Your task to perform on an android device: open app "ZOOM Cloud Meetings" (install if not already installed), go to login, and select forgot password Image 0: 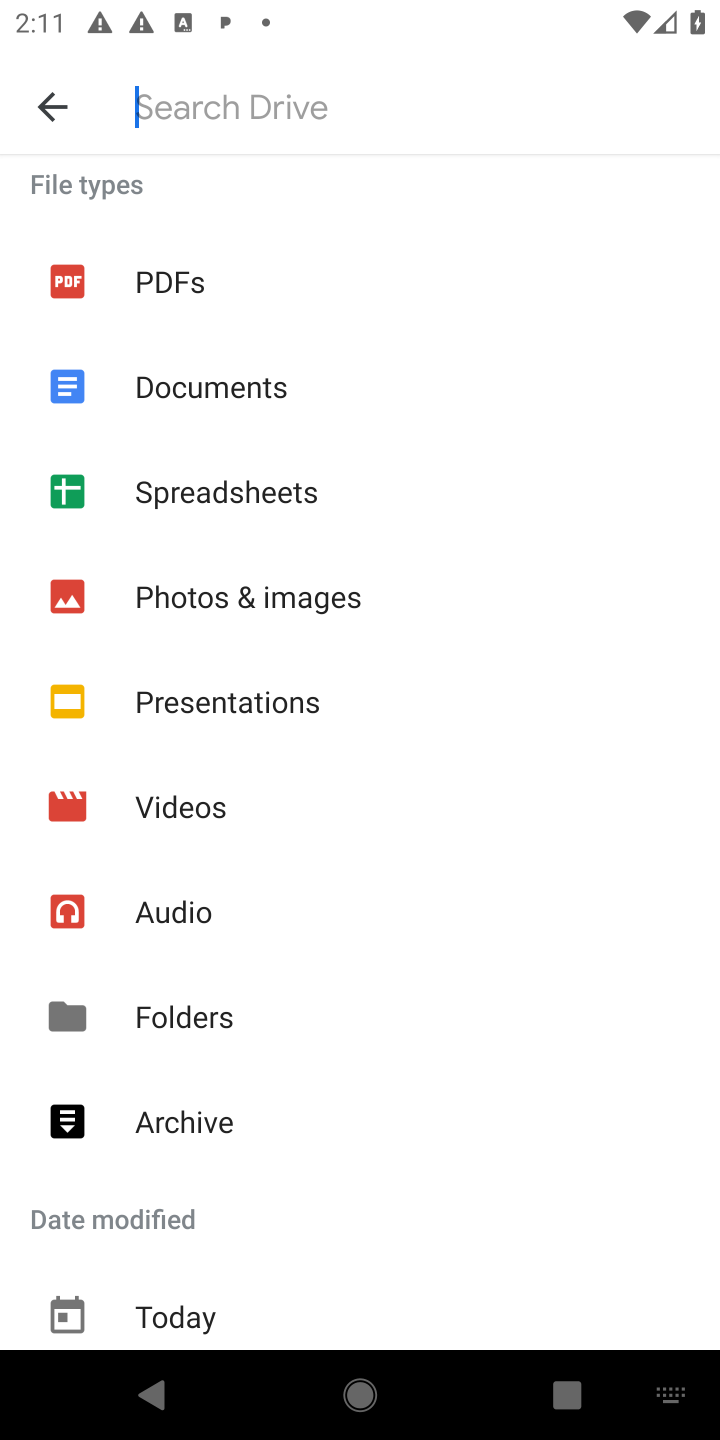
Step 0: press home button
Your task to perform on an android device: open app "ZOOM Cloud Meetings" (install if not already installed), go to login, and select forgot password Image 1: 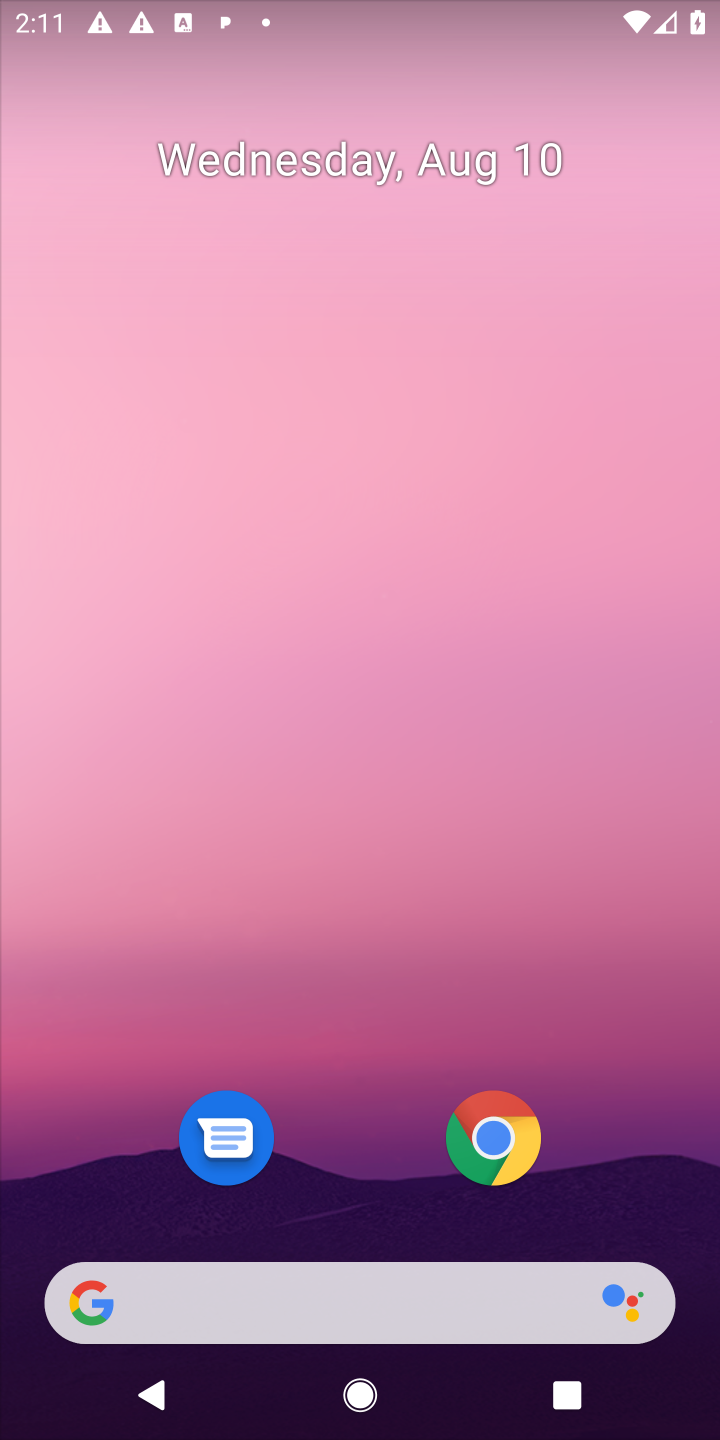
Step 1: drag from (617, 1202) to (625, 143)
Your task to perform on an android device: open app "ZOOM Cloud Meetings" (install if not already installed), go to login, and select forgot password Image 2: 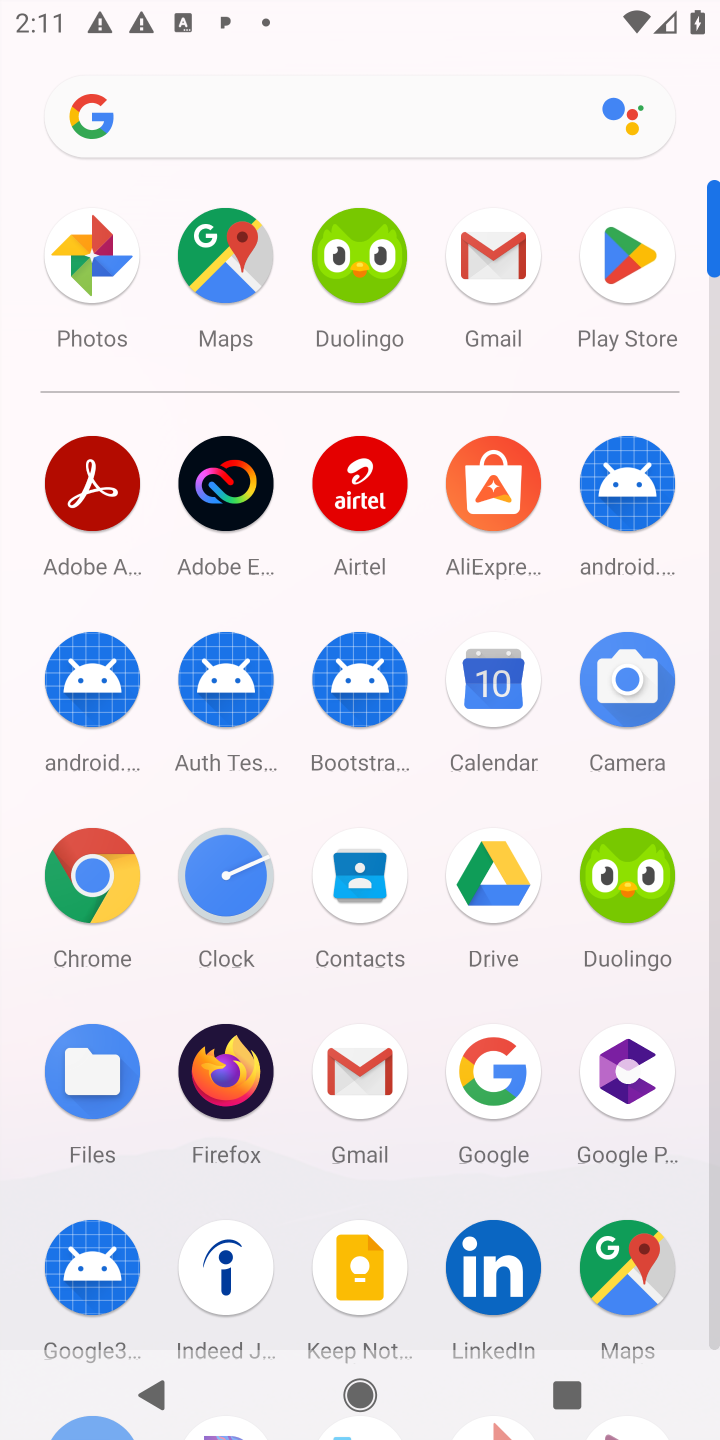
Step 2: click (610, 223)
Your task to perform on an android device: open app "ZOOM Cloud Meetings" (install if not already installed), go to login, and select forgot password Image 3: 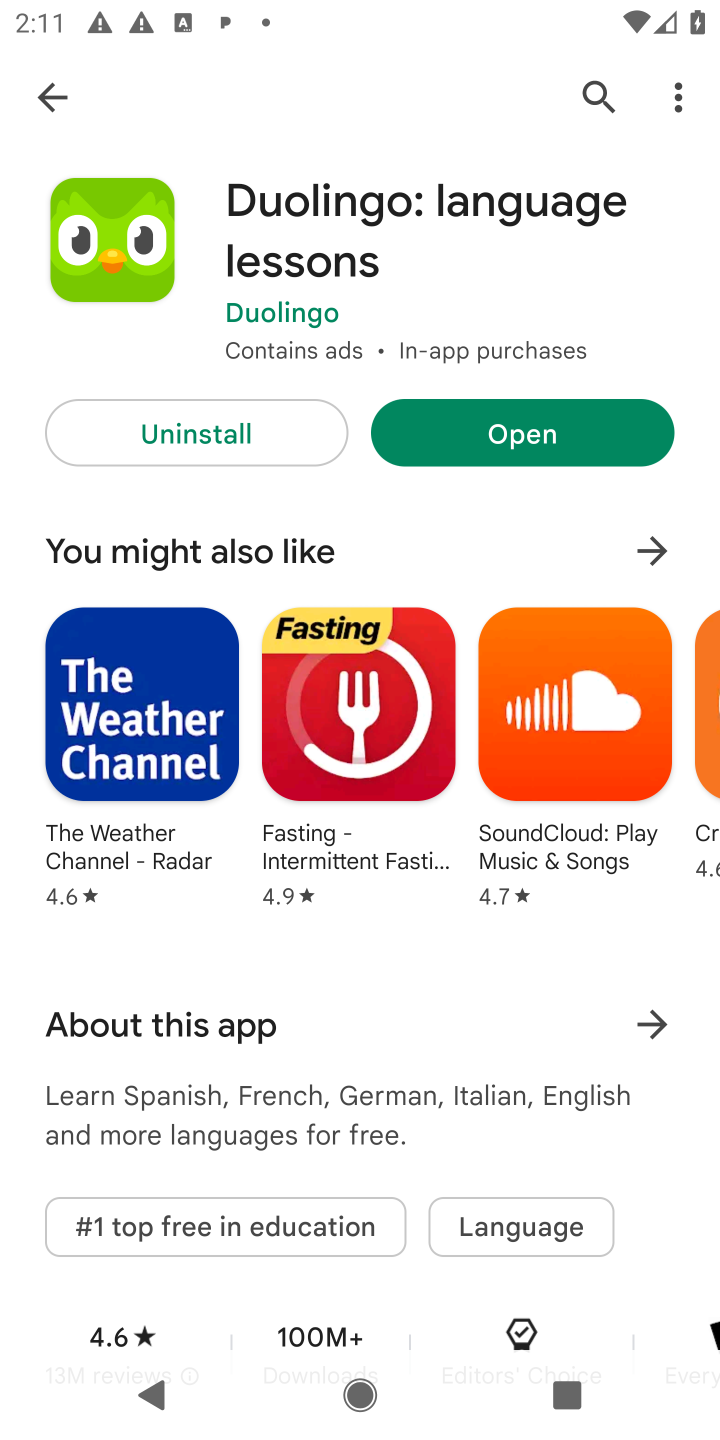
Step 3: click (605, 94)
Your task to perform on an android device: open app "ZOOM Cloud Meetings" (install if not already installed), go to login, and select forgot password Image 4: 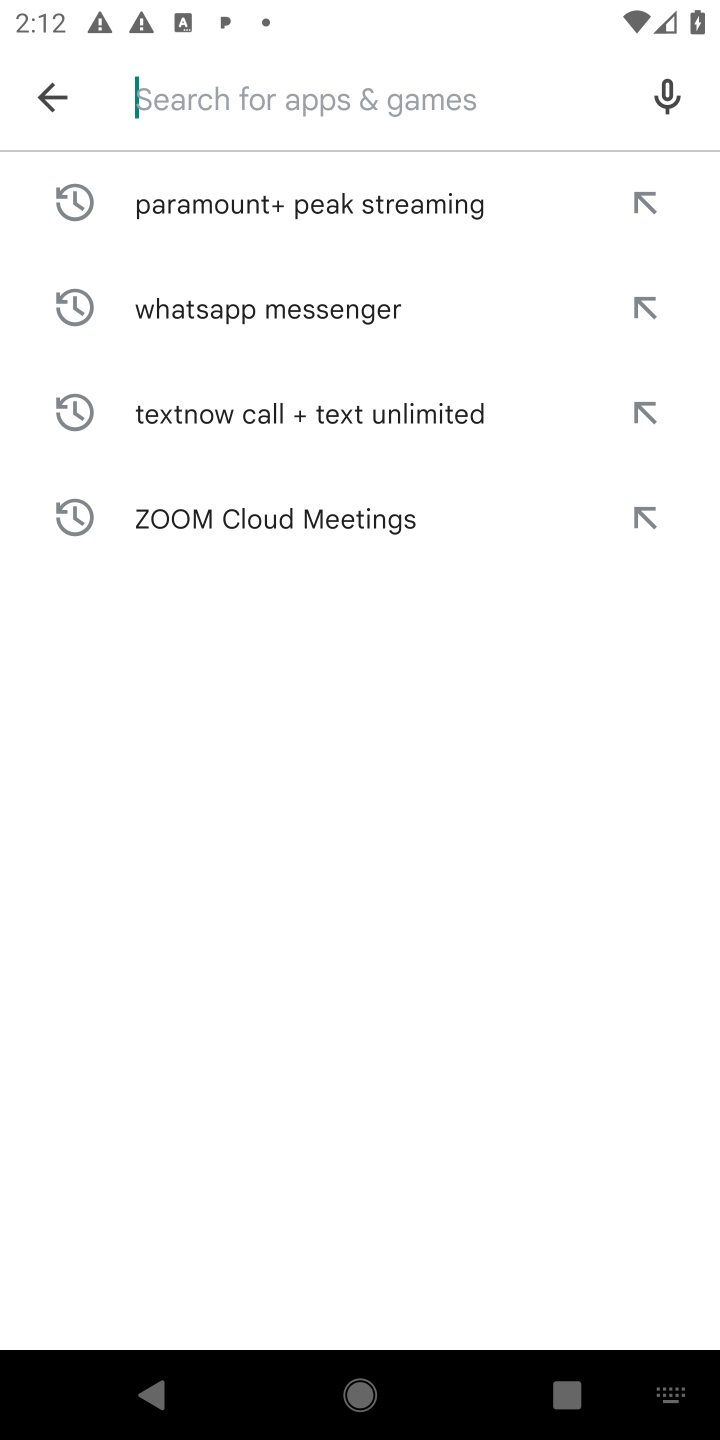
Step 4: type "ZOOM Cloud Meetings"
Your task to perform on an android device: open app "ZOOM Cloud Meetings" (install if not already installed), go to login, and select forgot password Image 5: 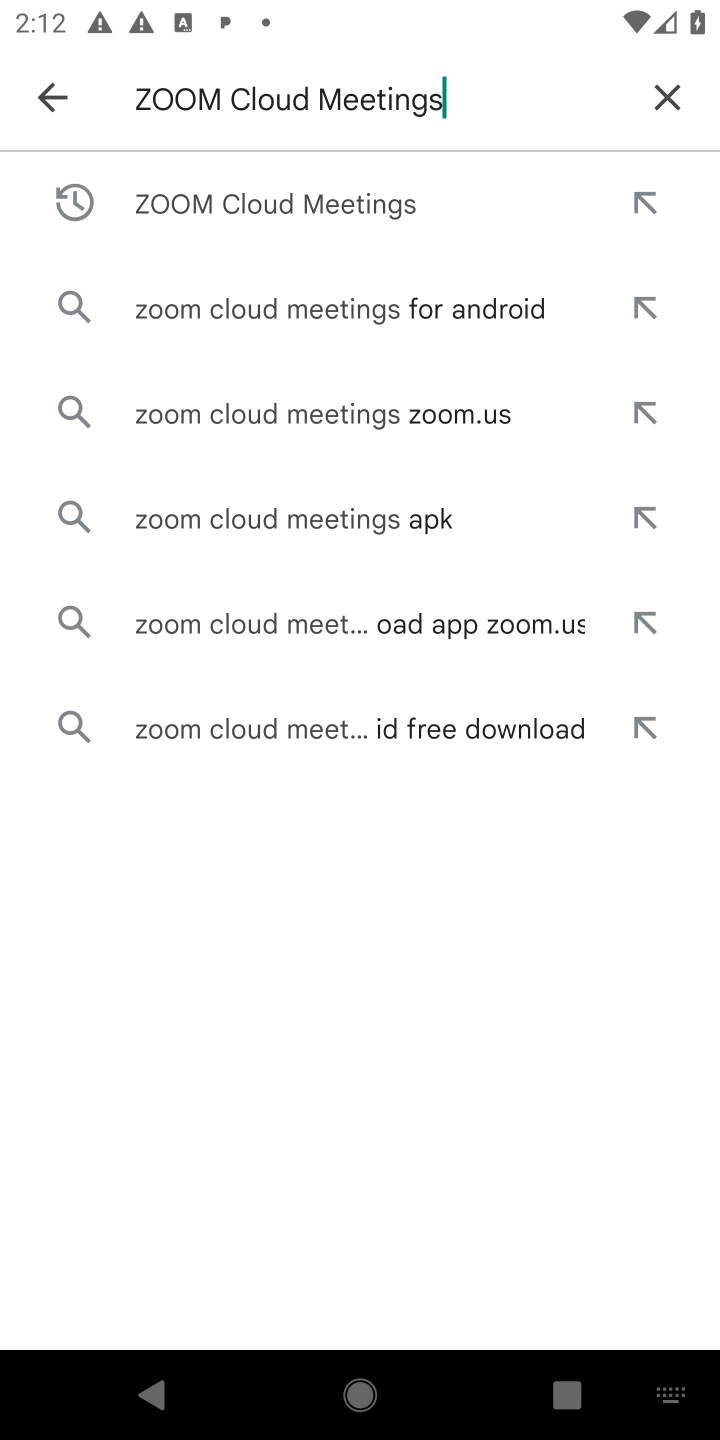
Step 5: press enter
Your task to perform on an android device: open app "ZOOM Cloud Meetings" (install if not already installed), go to login, and select forgot password Image 6: 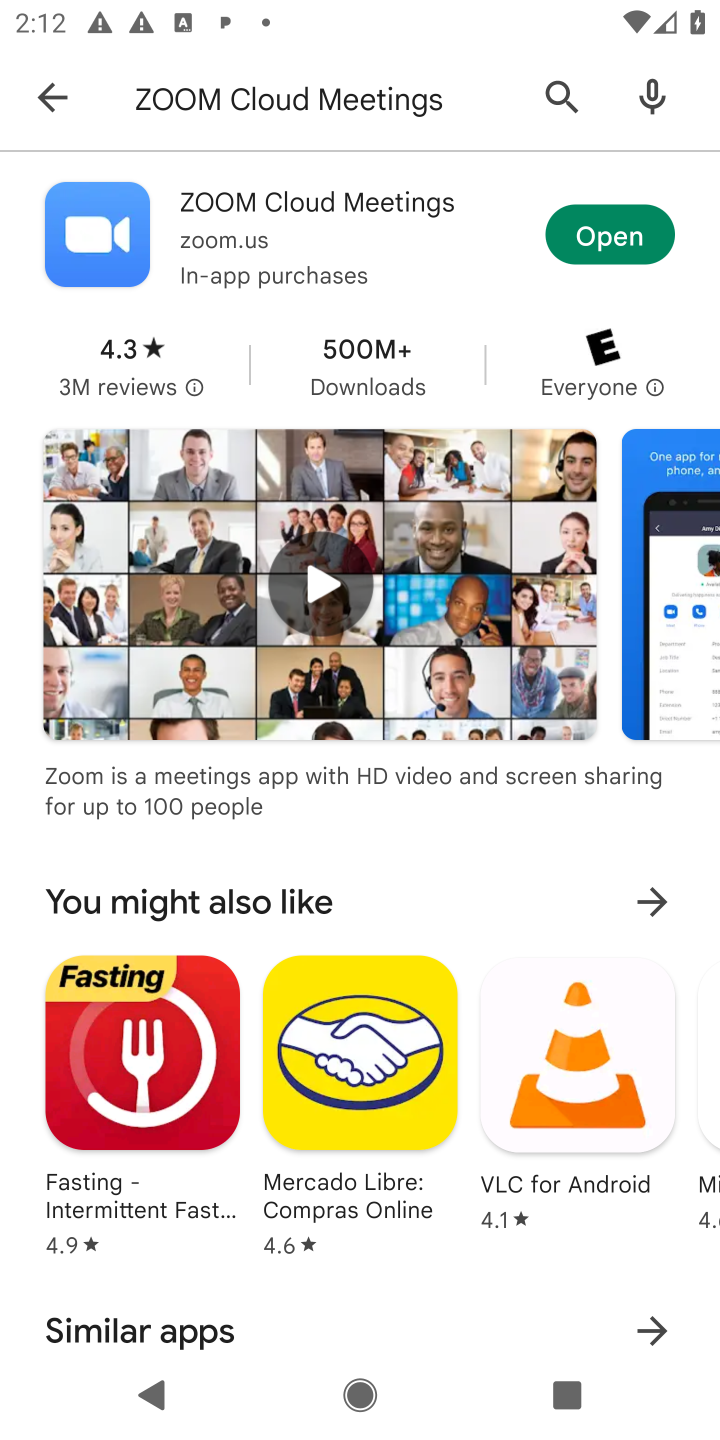
Step 6: click (615, 220)
Your task to perform on an android device: open app "ZOOM Cloud Meetings" (install if not already installed), go to login, and select forgot password Image 7: 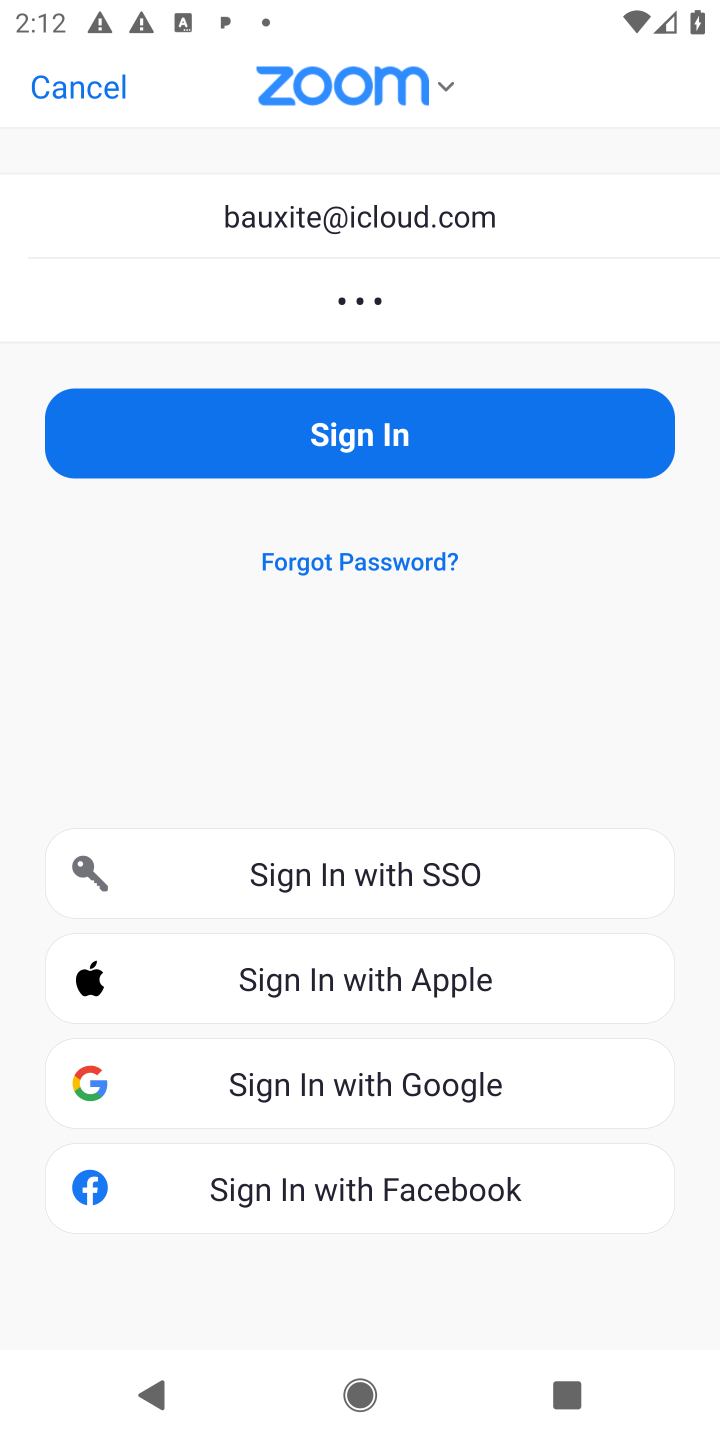
Step 7: click (441, 567)
Your task to perform on an android device: open app "ZOOM Cloud Meetings" (install if not already installed), go to login, and select forgot password Image 8: 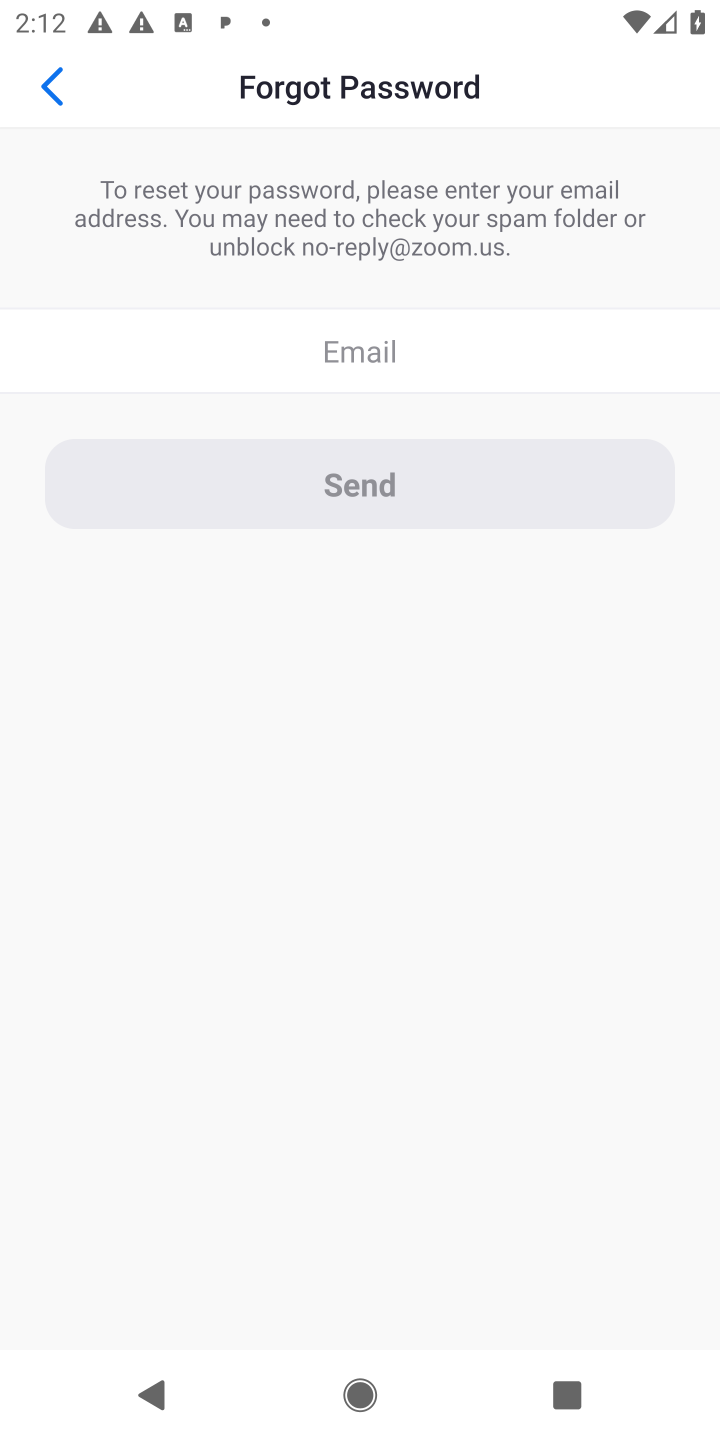
Step 8: task complete